Your task to perform on an android device: check battery use Image 0: 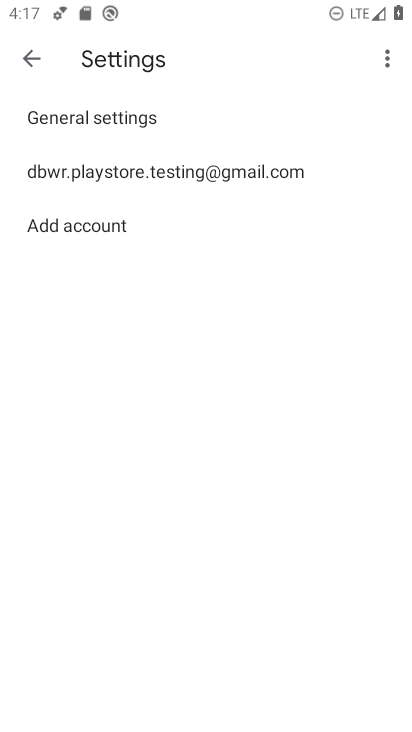
Step 0: press home button
Your task to perform on an android device: check battery use Image 1: 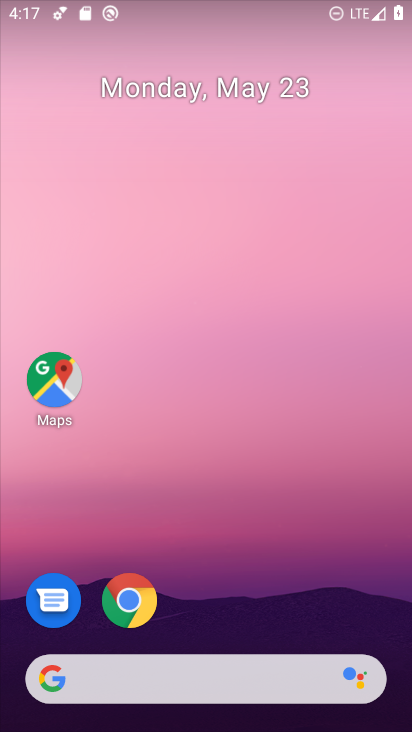
Step 1: drag from (278, 572) to (301, 5)
Your task to perform on an android device: check battery use Image 2: 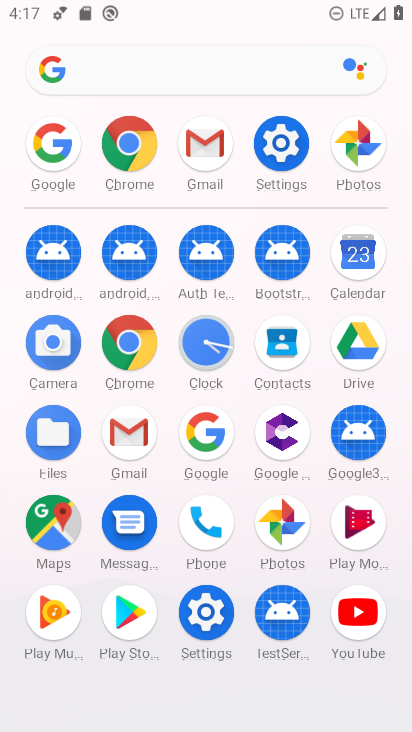
Step 2: click (276, 154)
Your task to perform on an android device: check battery use Image 3: 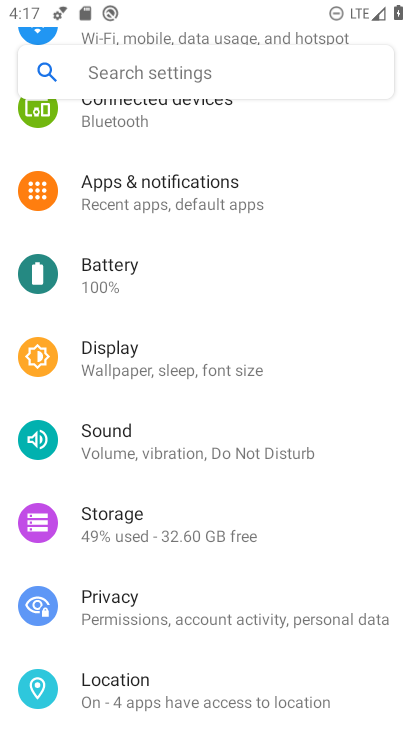
Step 3: click (94, 268)
Your task to perform on an android device: check battery use Image 4: 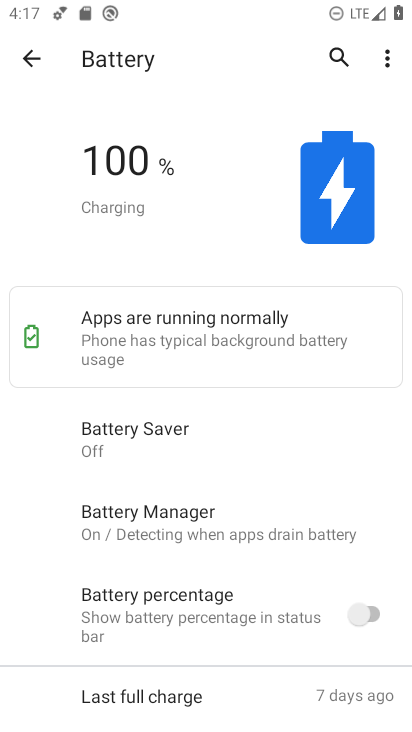
Step 4: click (384, 64)
Your task to perform on an android device: check battery use Image 5: 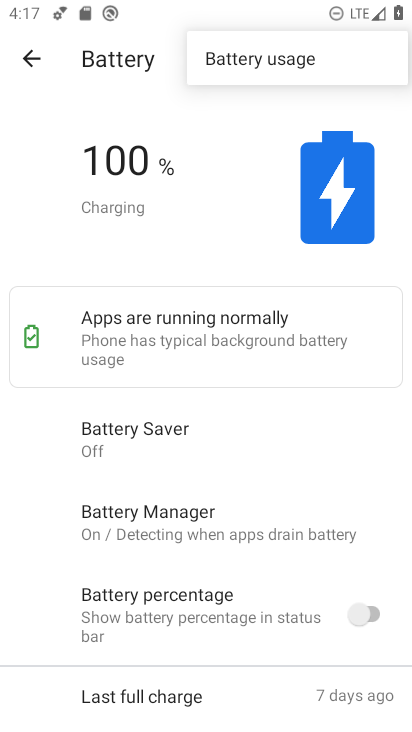
Step 5: click (271, 59)
Your task to perform on an android device: check battery use Image 6: 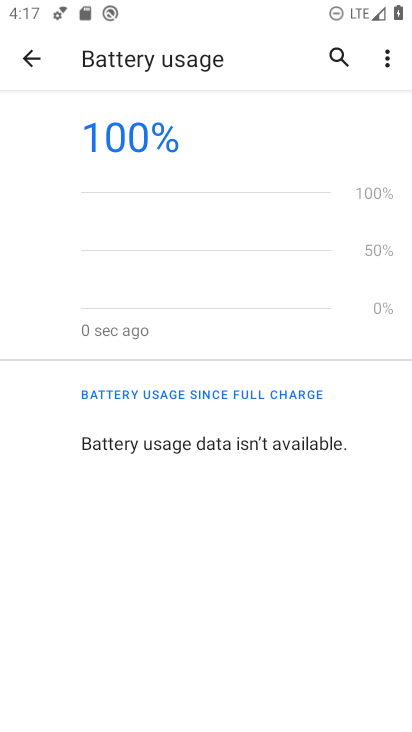
Step 6: task complete